Your task to perform on an android device: Is it going to rain today? Image 0: 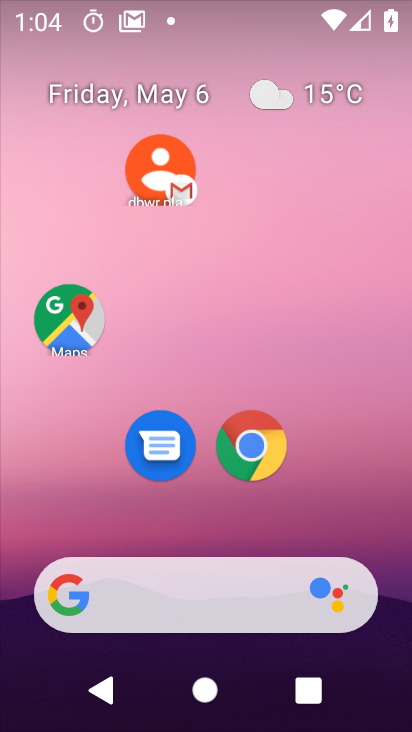
Step 0: drag from (336, 539) to (130, 92)
Your task to perform on an android device: Is it going to rain today? Image 1: 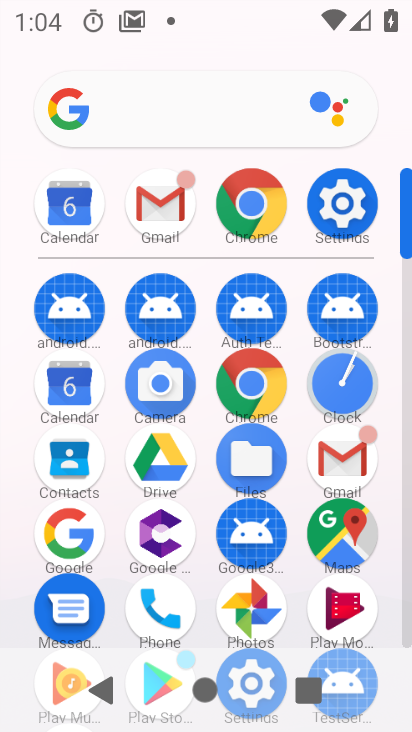
Step 1: press home button
Your task to perform on an android device: Is it going to rain today? Image 2: 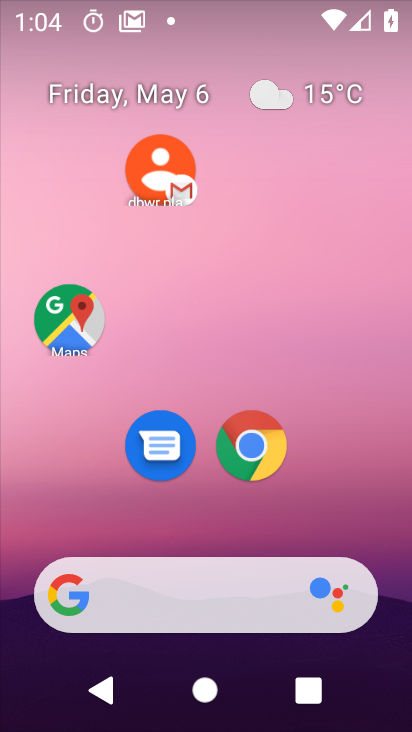
Step 2: drag from (13, 206) to (403, 344)
Your task to perform on an android device: Is it going to rain today? Image 3: 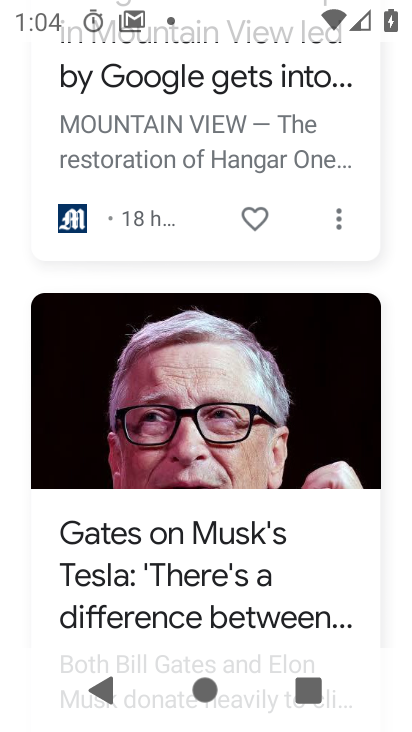
Step 3: drag from (186, 134) to (236, 473)
Your task to perform on an android device: Is it going to rain today? Image 4: 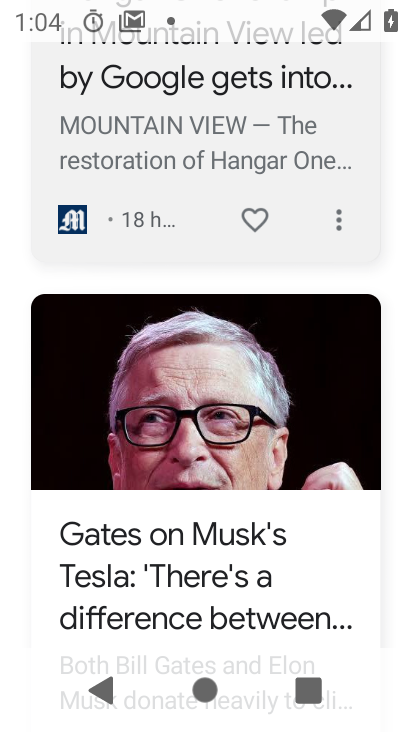
Step 4: drag from (157, 128) to (225, 389)
Your task to perform on an android device: Is it going to rain today? Image 5: 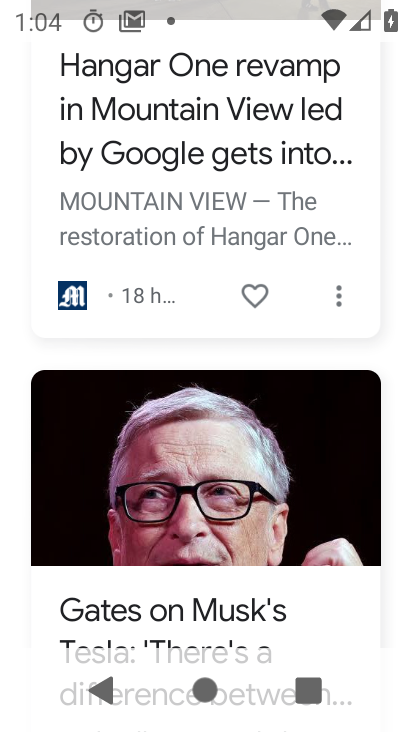
Step 5: drag from (162, 238) to (334, 667)
Your task to perform on an android device: Is it going to rain today? Image 6: 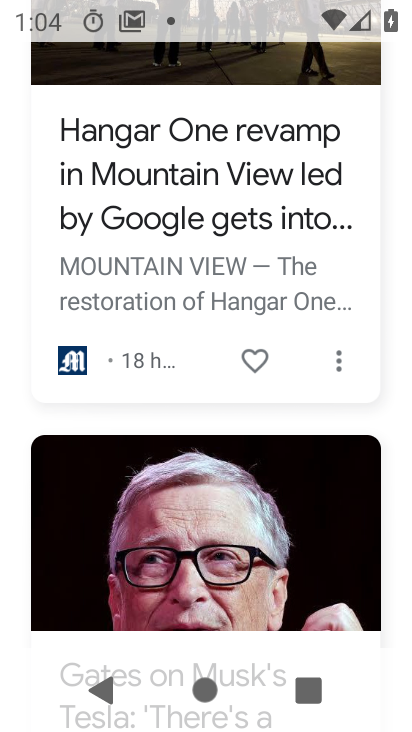
Step 6: drag from (269, 130) to (264, 527)
Your task to perform on an android device: Is it going to rain today? Image 7: 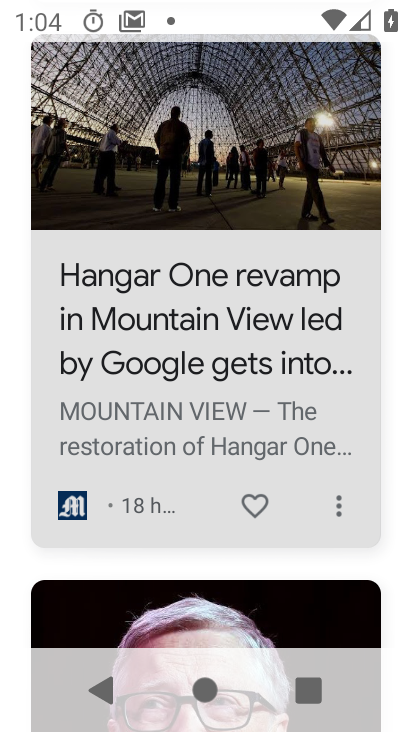
Step 7: drag from (210, 297) to (206, 619)
Your task to perform on an android device: Is it going to rain today? Image 8: 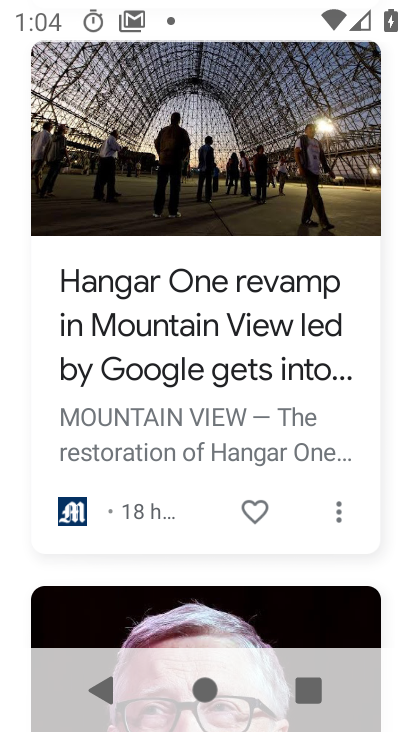
Step 8: drag from (247, 209) to (247, 594)
Your task to perform on an android device: Is it going to rain today? Image 9: 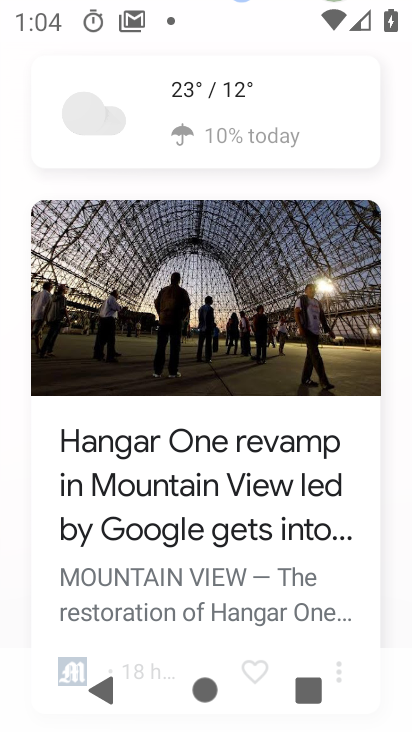
Step 9: drag from (222, 115) to (230, 167)
Your task to perform on an android device: Is it going to rain today? Image 10: 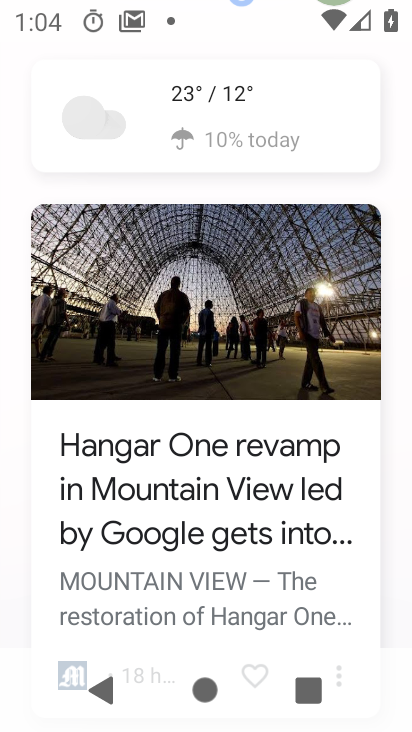
Step 10: click (195, 119)
Your task to perform on an android device: Is it going to rain today? Image 11: 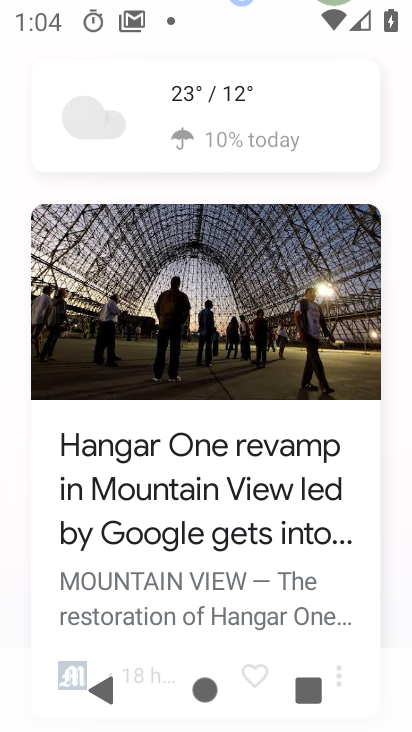
Step 11: click (195, 119)
Your task to perform on an android device: Is it going to rain today? Image 12: 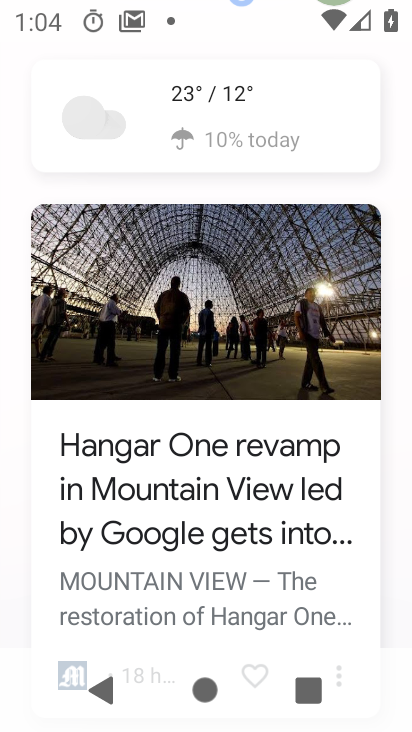
Step 12: click (195, 119)
Your task to perform on an android device: Is it going to rain today? Image 13: 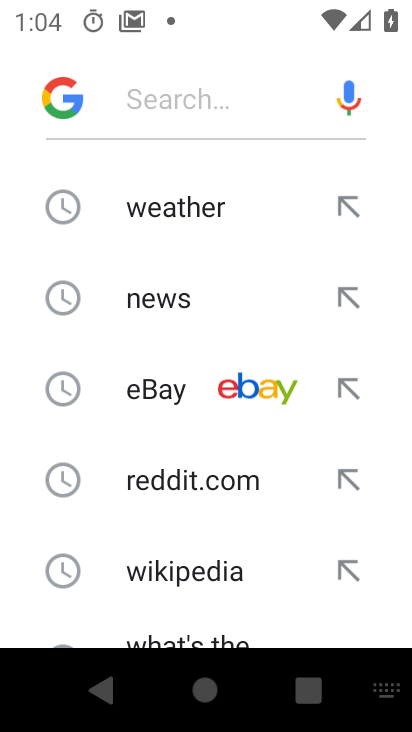
Step 13: task complete